Your task to perform on an android device: Open calendar and show me the first week of next month Image 0: 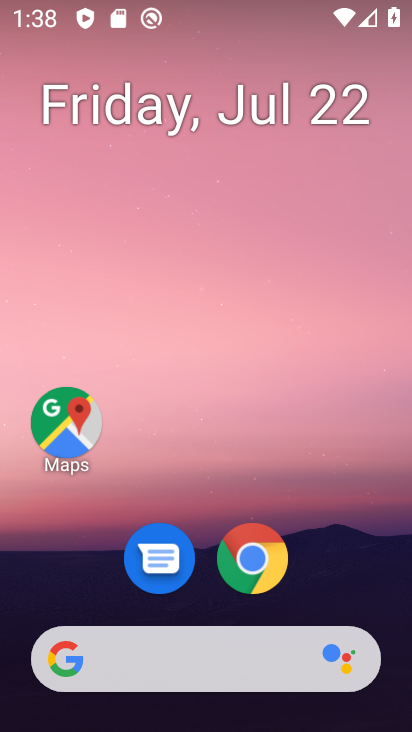
Step 0: drag from (359, 585) to (238, 138)
Your task to perform on an android device: Open calendar and show me the first week of next month Image 1: 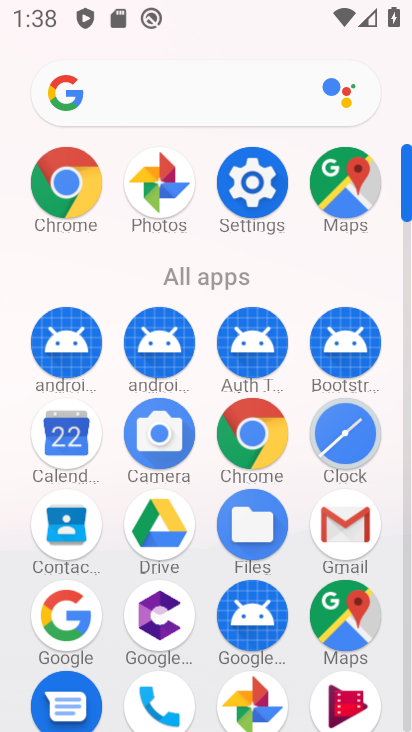
Step 1: click (52, 467)
Your task to perform on an android device: Open calendar and show me the first week of next month Image 2: 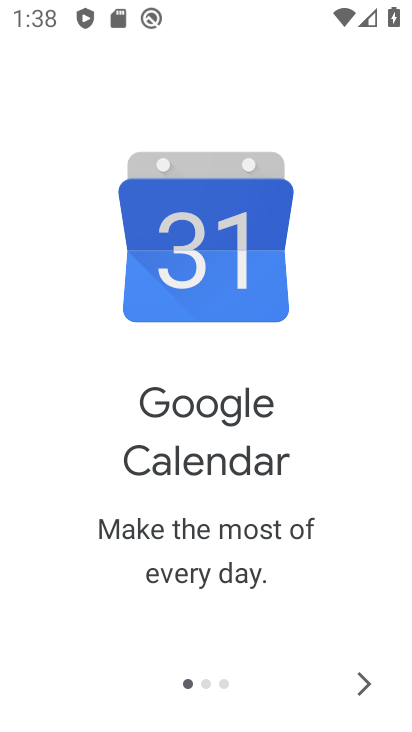
Step 2: click (374, 689)
Your task to perform on an android device: Open calendar and show me the first week of next month Image 3: 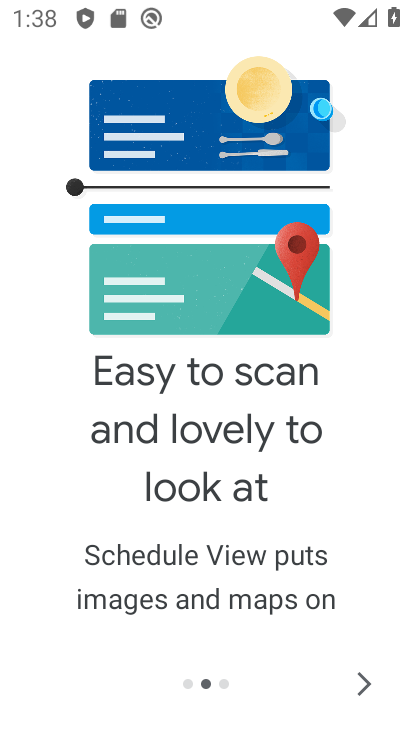
Step 3: click (374, 689)
Your task to perform on an android device: Open calendar and show me the first week of next month Image 4: 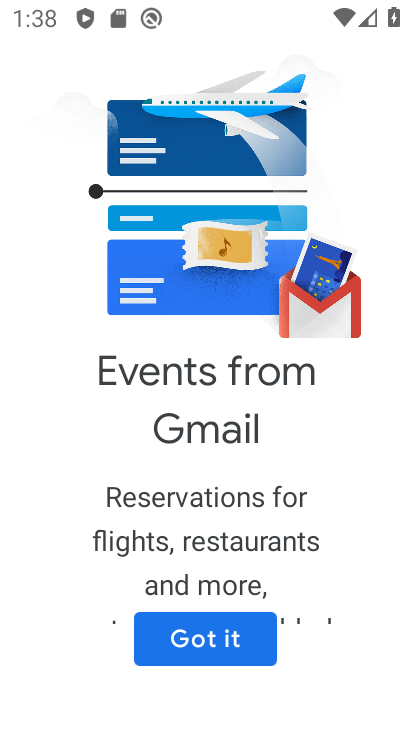
Step 4: click (249, 648)
Your task to perform on an android device: Open calendar and show me the first week of next month Image 5: 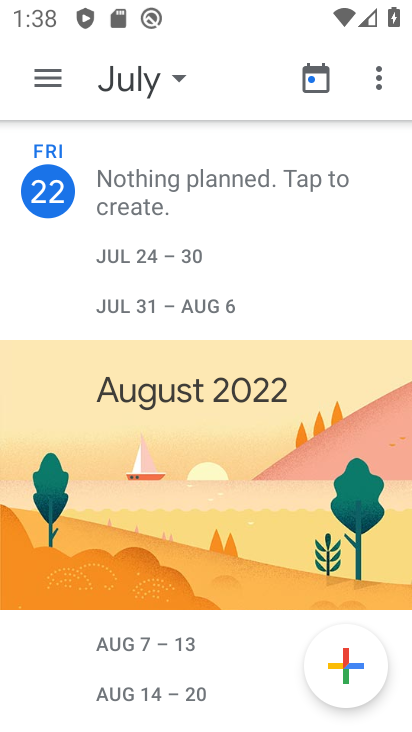
Step 5: click (51, 75)
Your task to perform on an android device: Open calendar and show me the first week of next month Image 6: 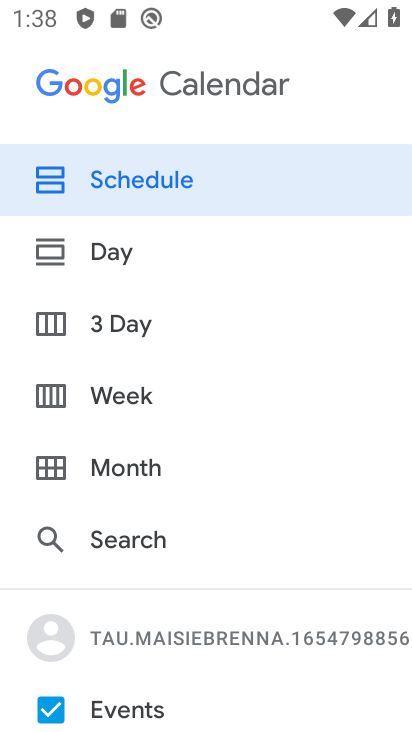
Step 6: click (123, 386)
Your task to perform on an android device: Open calendar and show me the first week of next month Image 7: 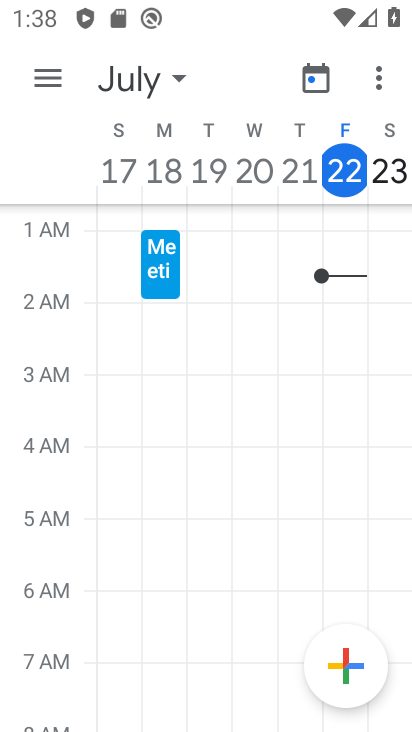
Step 7: click (149, 91)
Your task to perform on an android device: Open calendar and show me the first week of next month Image 8: 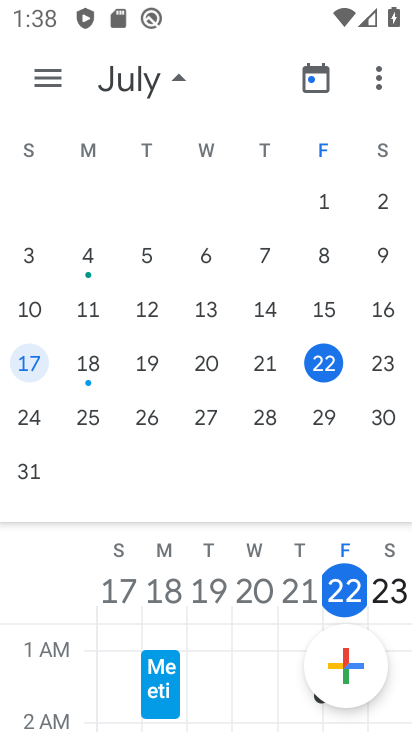
Step 8: drag from (404, 310) to (46, 307)
Your task to perform on an android device: Open calendar and show me the first week of next month Image 9: 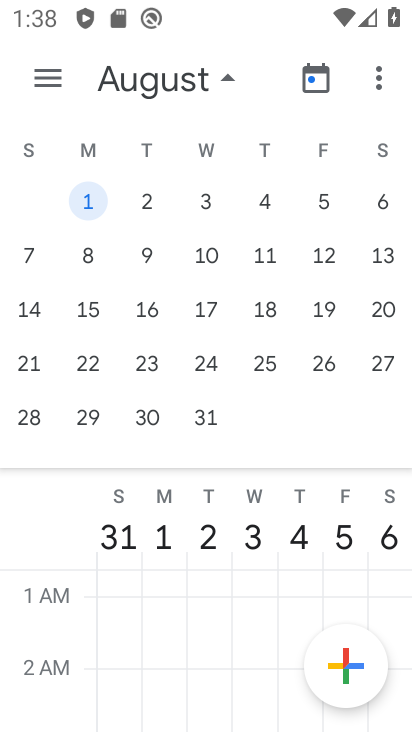
Step 9: click (206, 206)
Your task to perform on an android device: Open calendar and show me the first week of next month Image 10: 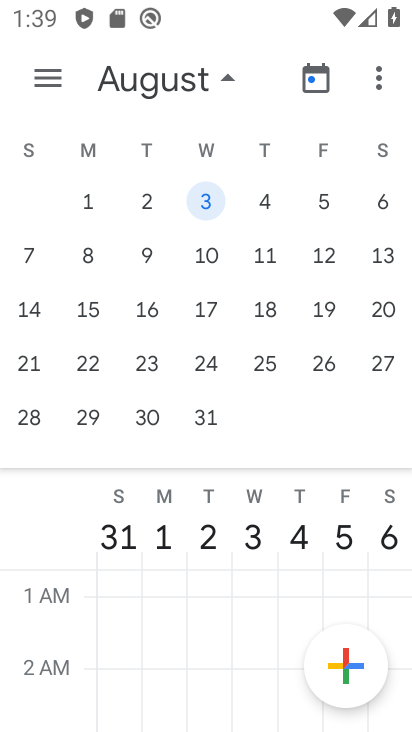
Step 10: task complete